Your task to perform on an android device: Turn on the flashlight Image 0: 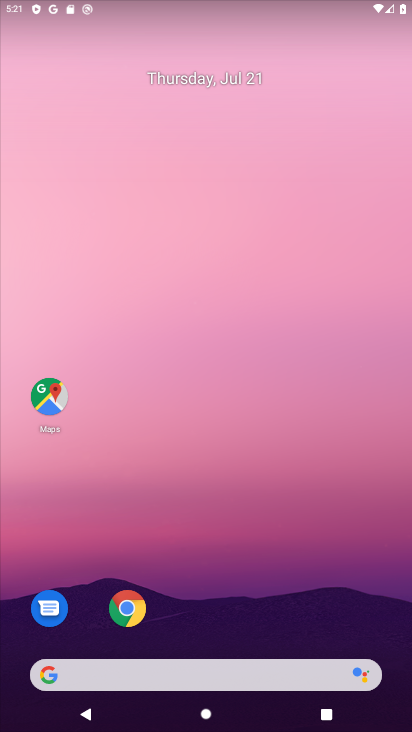
Step 0: drag from (221, 563) to (192, 83)
Your task to perform on an android device: Turn on the flashlight Image 1: 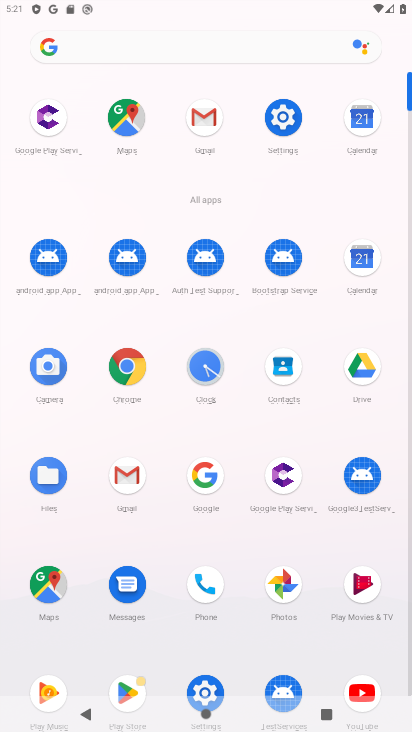
Step 1: click (282, 119)
Your task to perform on an android device: Turn on the flashlight Image 2: 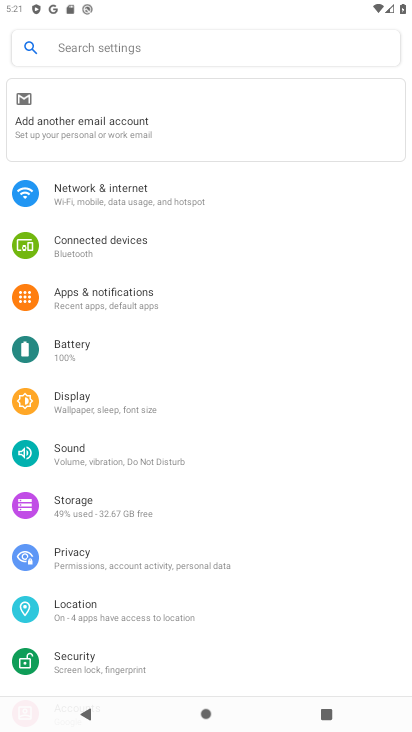
Step 2: click (79, 390)
Your task to perform on an android device: Turn on the flashlight Image 3: 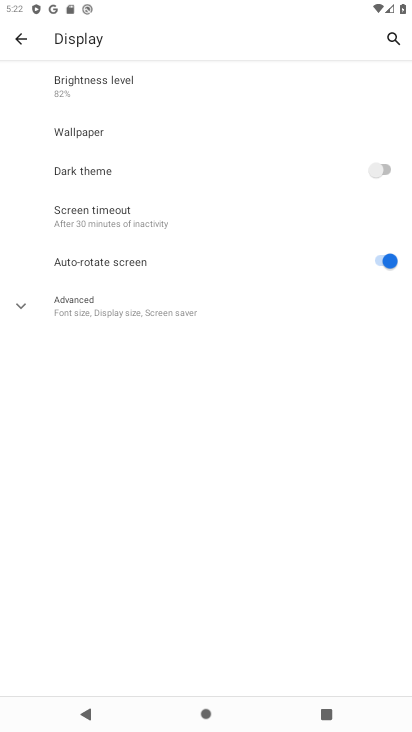
Step 3: task complete